Your task to perform on an android device: Go to network settings Image 0: 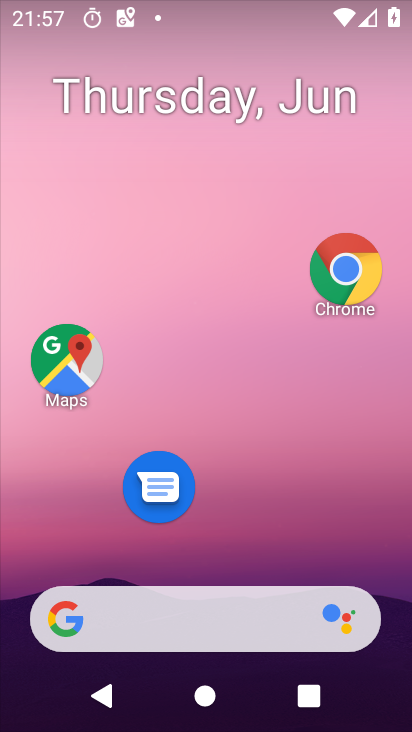
Step 0: drag from (230, 476) to (188, 2)
Your task to perform on an android device: Go to network settings Image 1: 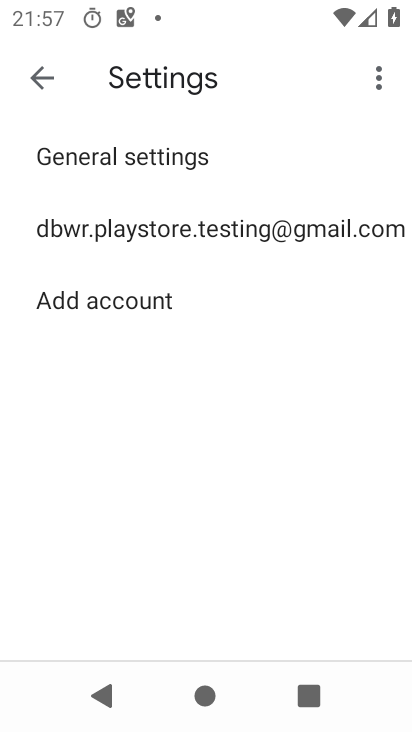
Step 1: press home button
Your task to perform on an android device: Go to network settings Image 2: 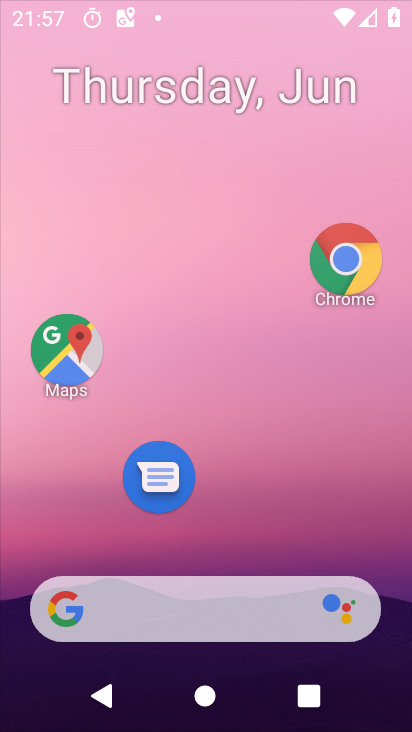
Step 2: drag from (255, 527) to (150, 1)
Your task to perform on an android device: Go to network settings Image 3: 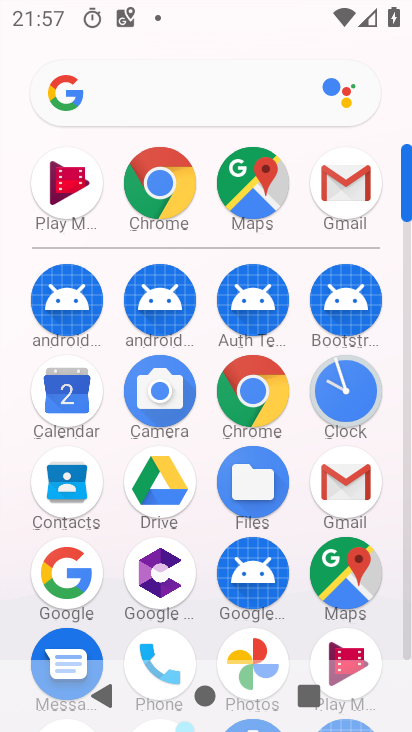
Step 3: drag from (200, 633) to (201, 191)
Your task to perform on an android device: Go to network settings Image 4: 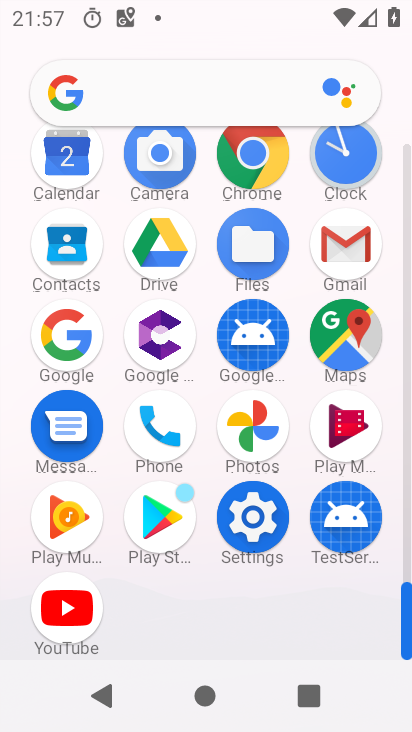
Step 4: click (250, 510)
Your task to perform on an android device: Go to network settings Image 5: 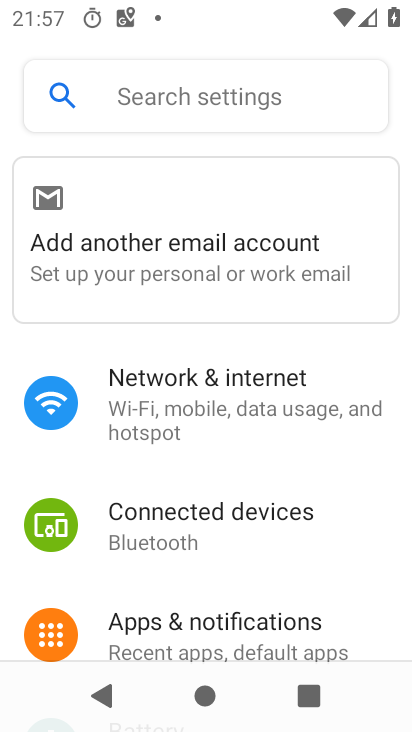
Step 5: click (157, 421)
Your task to perform on an android device: Go to network settings Image 6: 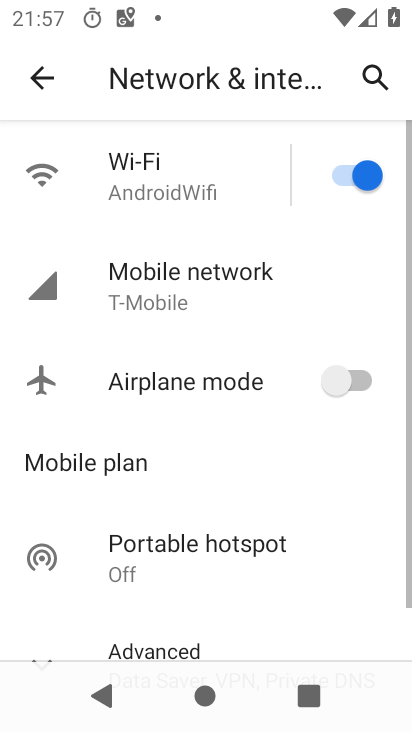
Step 6: task complete